Your task to perform on an android device: open app "Google Play services" (install if not already installed) Image 0: 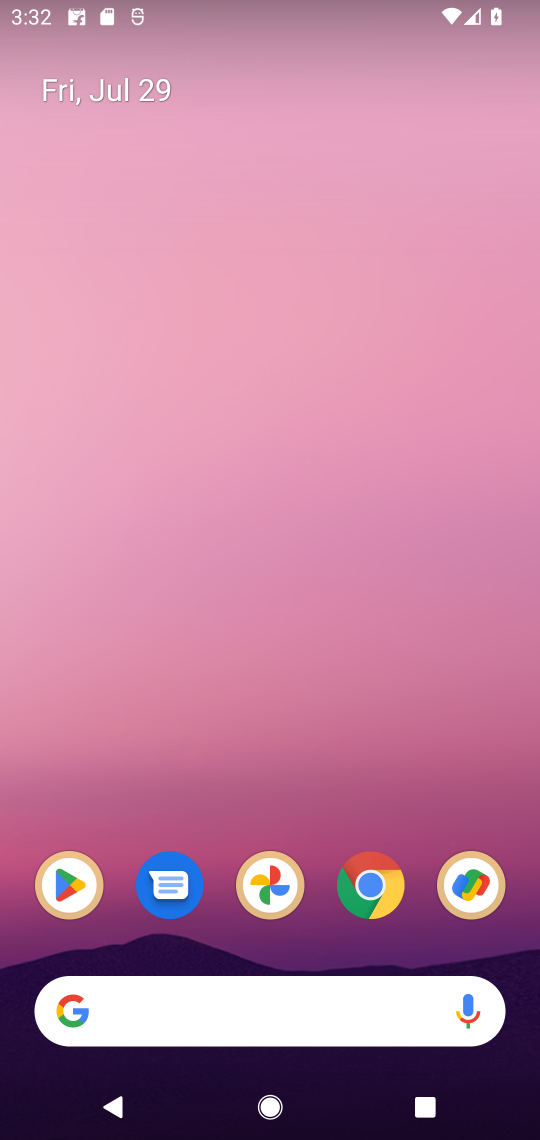
Step 0: click (85, 906)
Your task to perform on an android device: open app "Google Play services" (install if not already installed) Image 1: 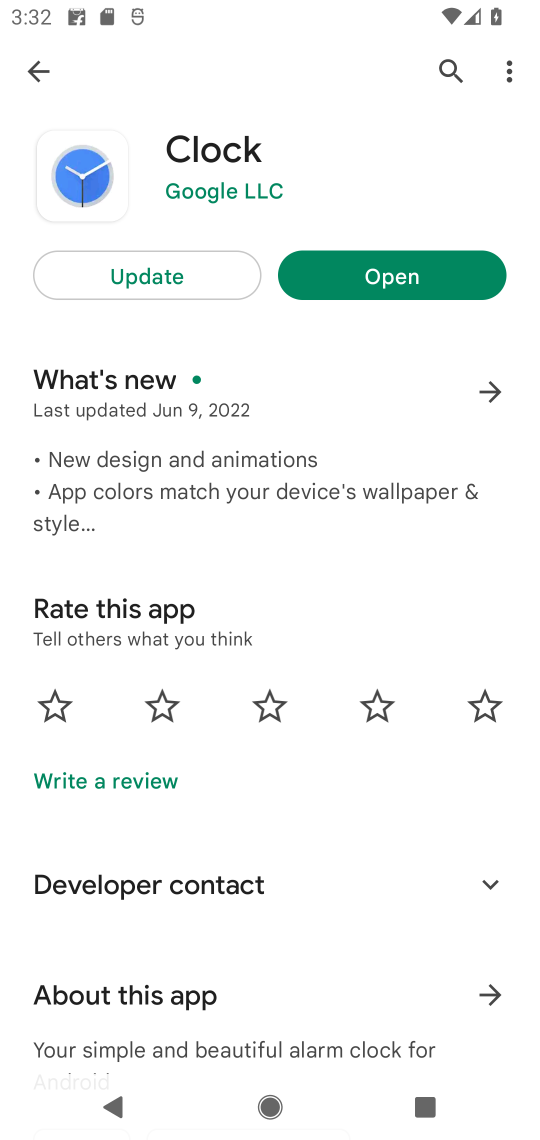
Step 1: click (455, 79)
Your task to perform on an android device: open app "Google Play services" (install if not already installed) Image 2: 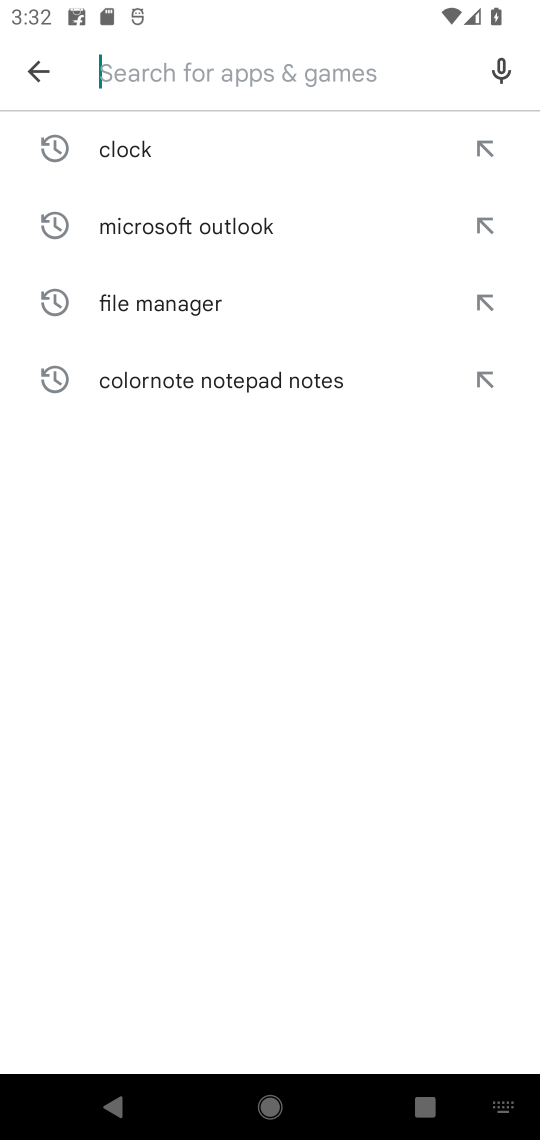
Step 2: type "Google Play services"
Your task to perform on an android device: open app "Google Play services" (install if not already installed) Image 3: 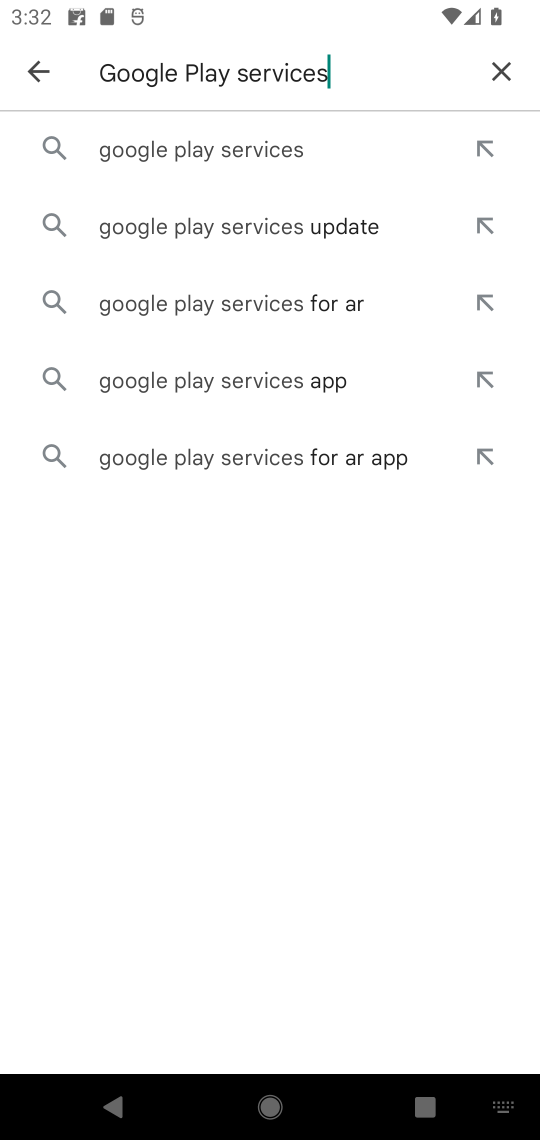
Step 3: click (311, 141)
Your task to perform on an android device: open app "Google Play services" (install if not already installed) Image 4: 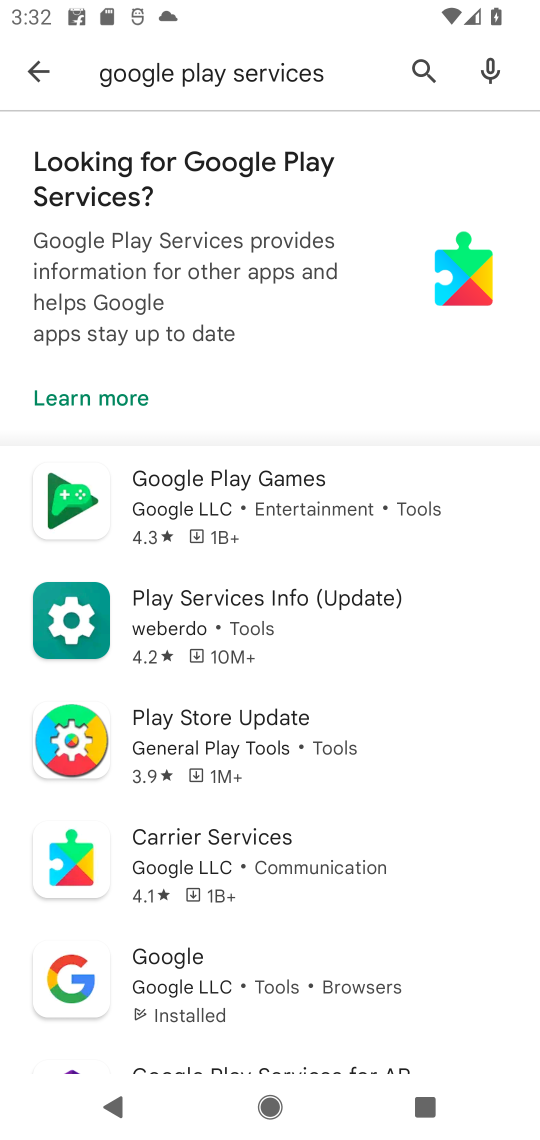
Step 4: task complete